Your task to perform on an android device: Open calendar and show me the first week of next month Image 0: 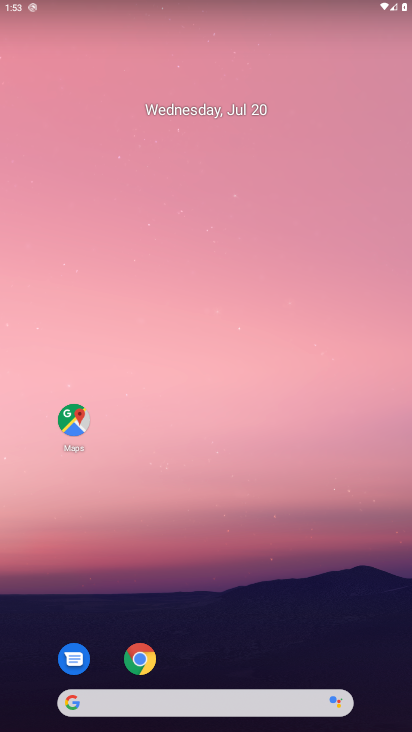
Step 0: drag from (50, 691) to (170, 313)
Your task to perform on an android device: Open calendar and show me the first week of next month Image 1: 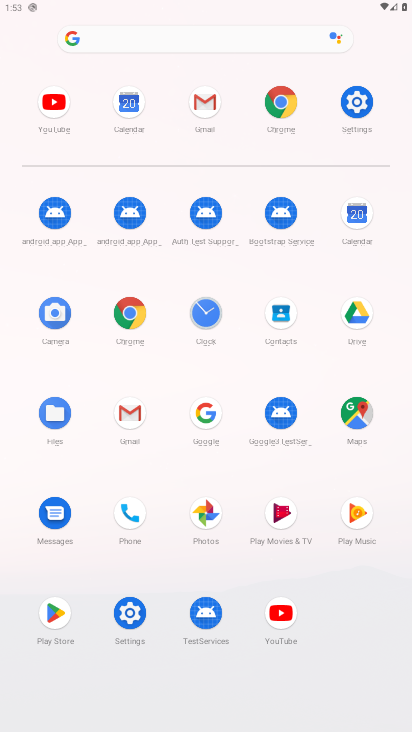
Step 1: click (362, 216)
Your task to perform on an android device: Open calendar and show me the first week of next month Image 2: 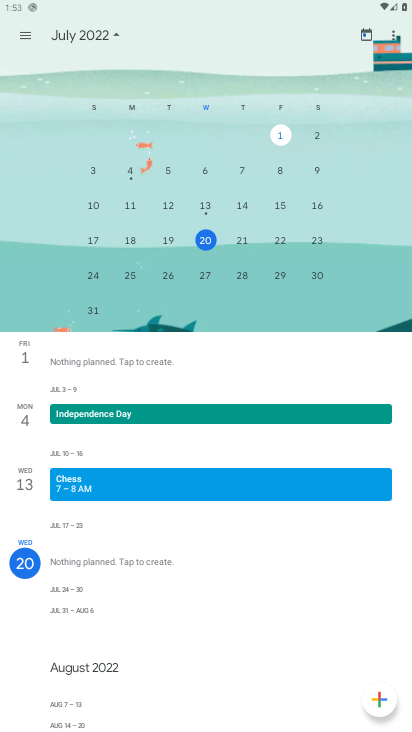
Step 2: task complete